Your task to perform on an android device: delete a single message in the gmail app Image 0: 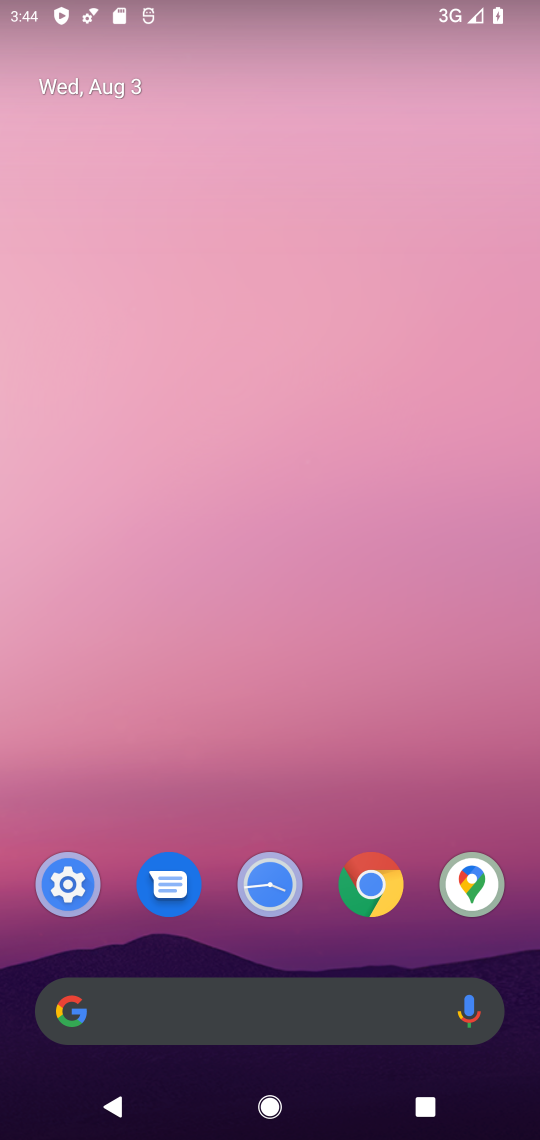
Step 0: drag from (405, 963) to (384, 2)
Your task to perform on an android device: delete a single message in the gmail app Image 1: 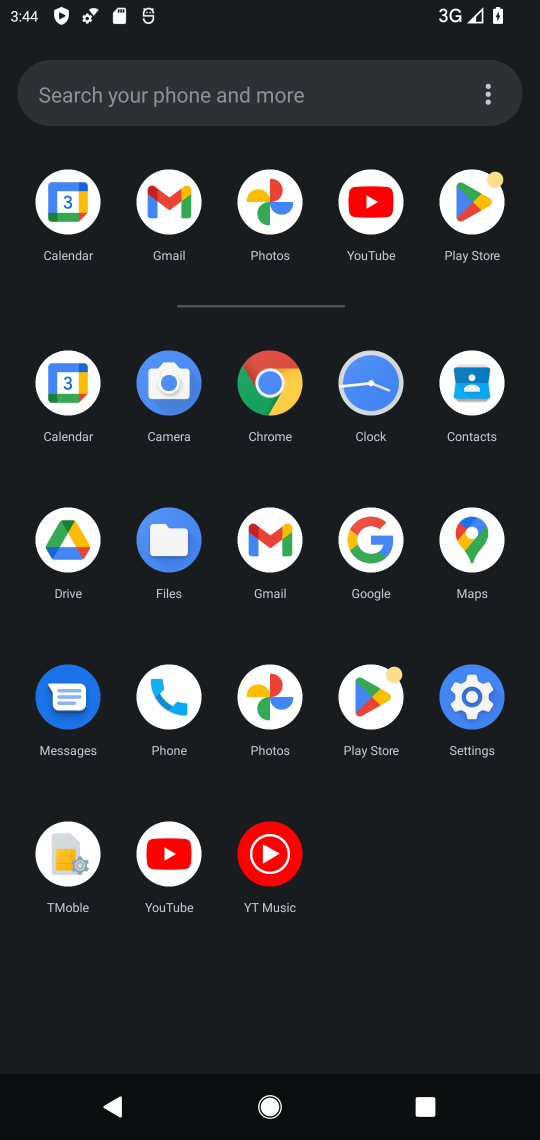
Step 1: click (168, 210)
Your task to perform on an android device: delete a single message in the gmail app Image 2: 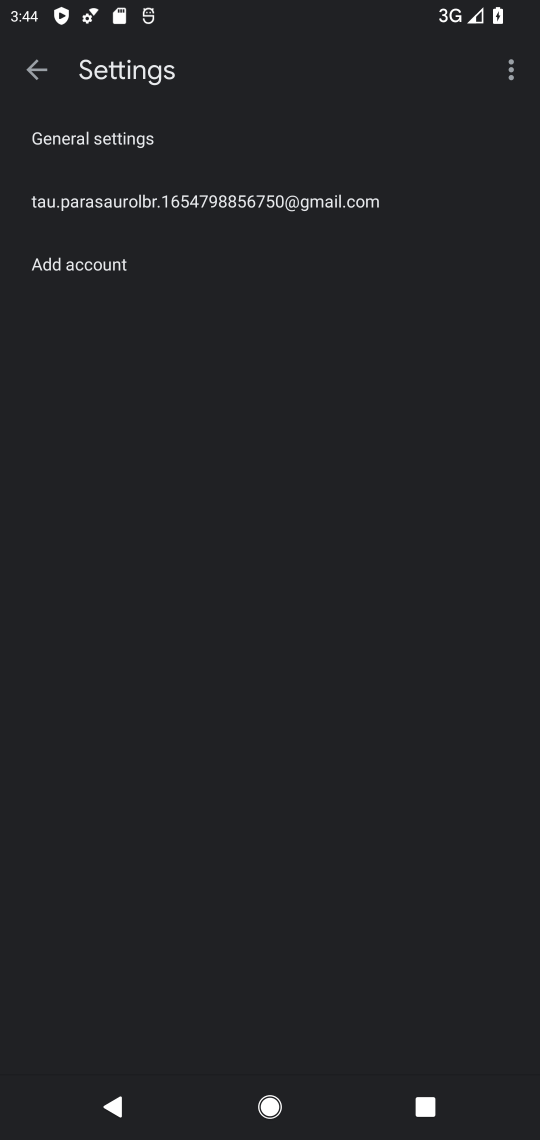
Step 2: click (67, 140)
Your task to perform on an android device: delete a single message in the gmail app Image 3: 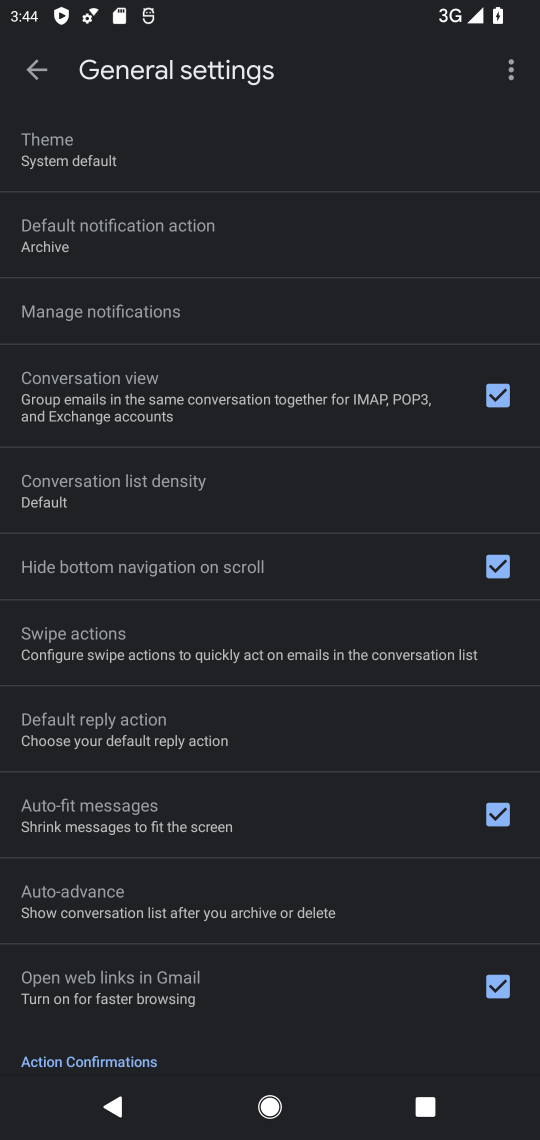
Step 3: task complete